Your task to perform on an android device: empty trash in the gmail app Image 0: 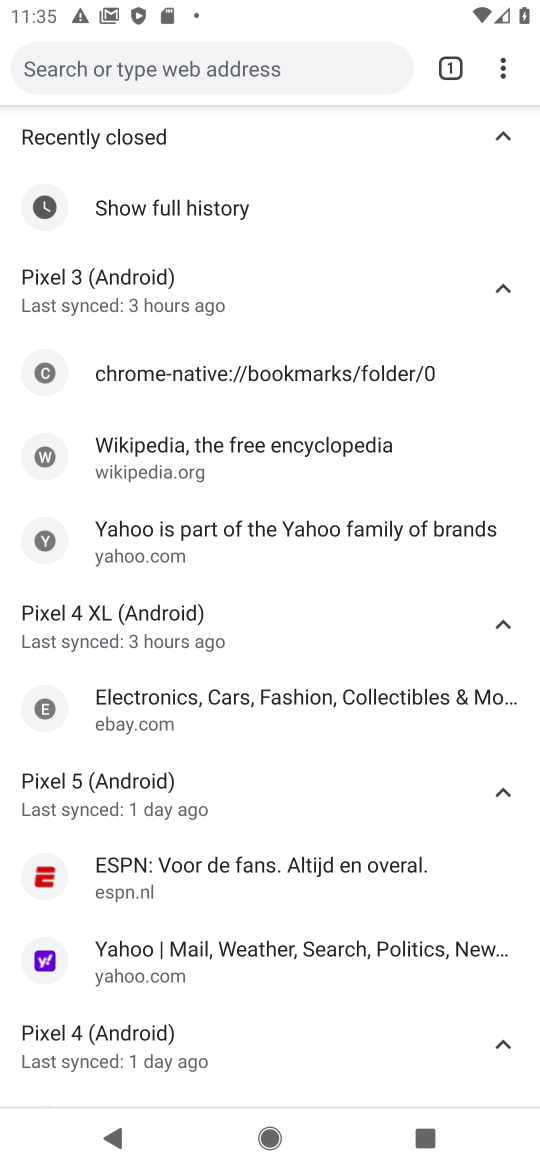
Step 0: press home button
Your task to perform on an android device: empty trash in the gmail app Image 1: 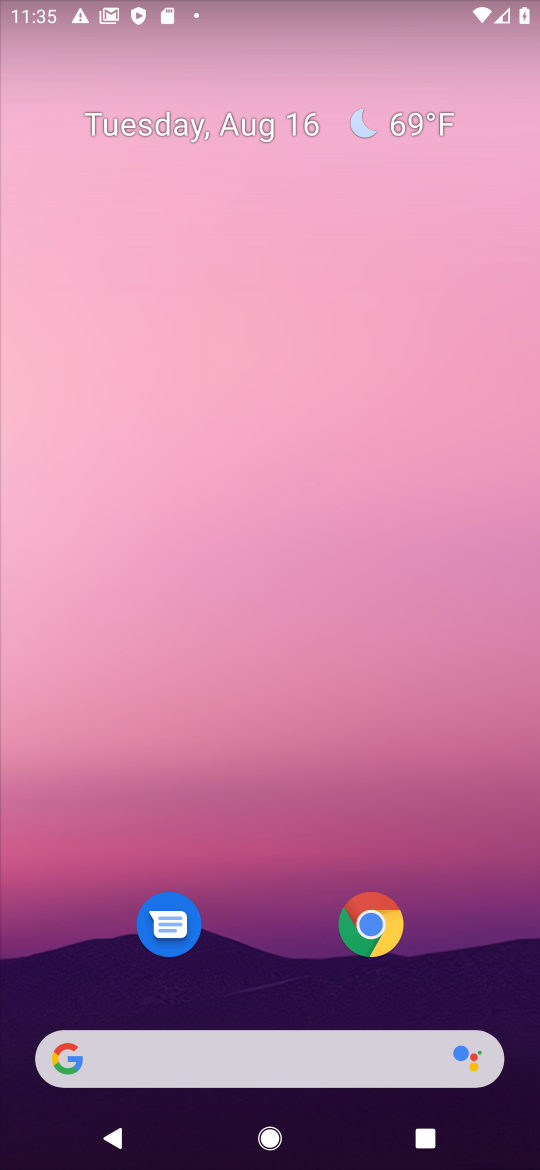
Step 1: drag from (317, 972) to (393, 49)
Your task to perform on an android device: empty trash in the gmail app Image 2: 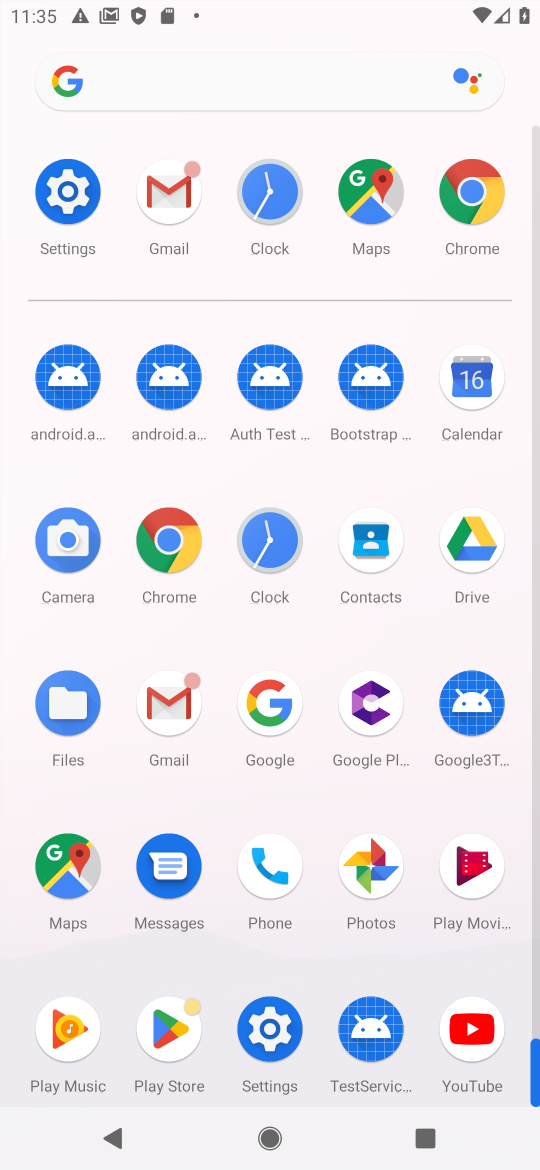
Step 2: click (148, 177)
Your task to perform on an android device: empty trash in the gmail app Image 3: 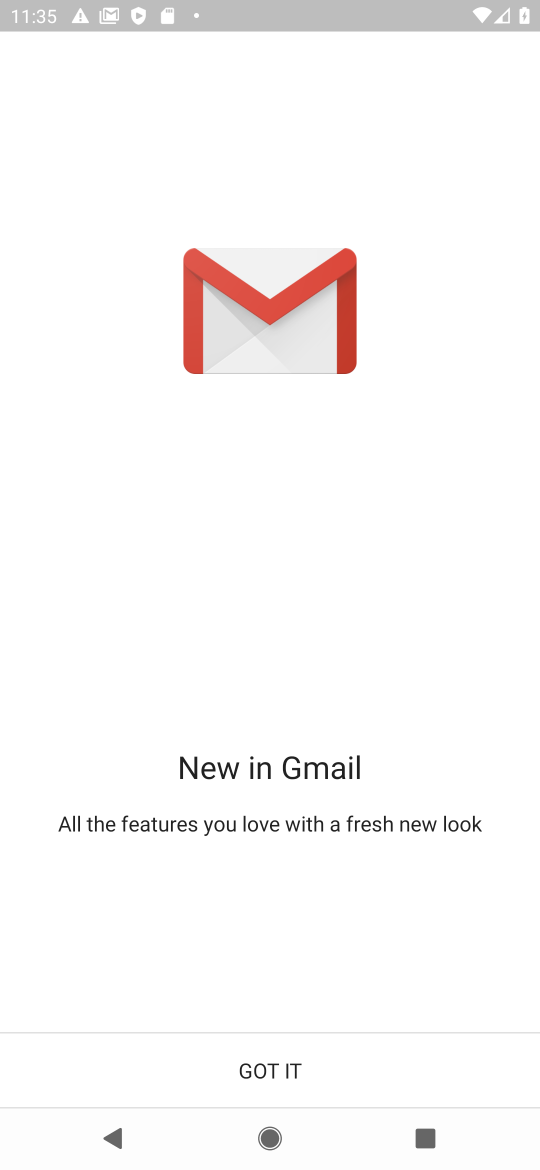
Step 3: click (403, 1062)
Your task to perform on an android device: empty trash in the gmail app Image 4: 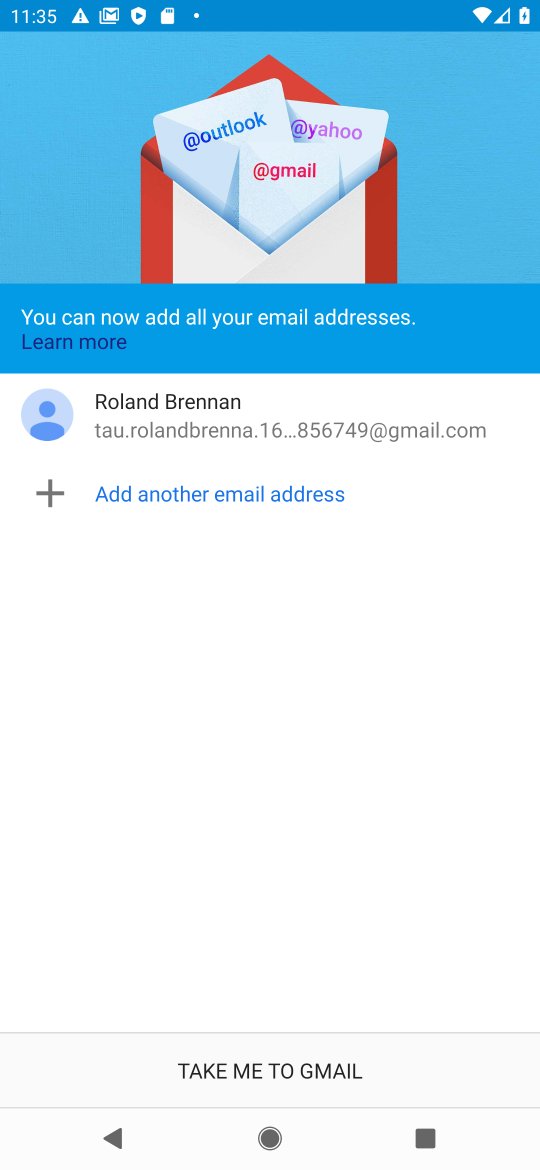
Step 4: click (403, 1062)
Your task to perform on an android device: empty trash in the gmail app Image 5: 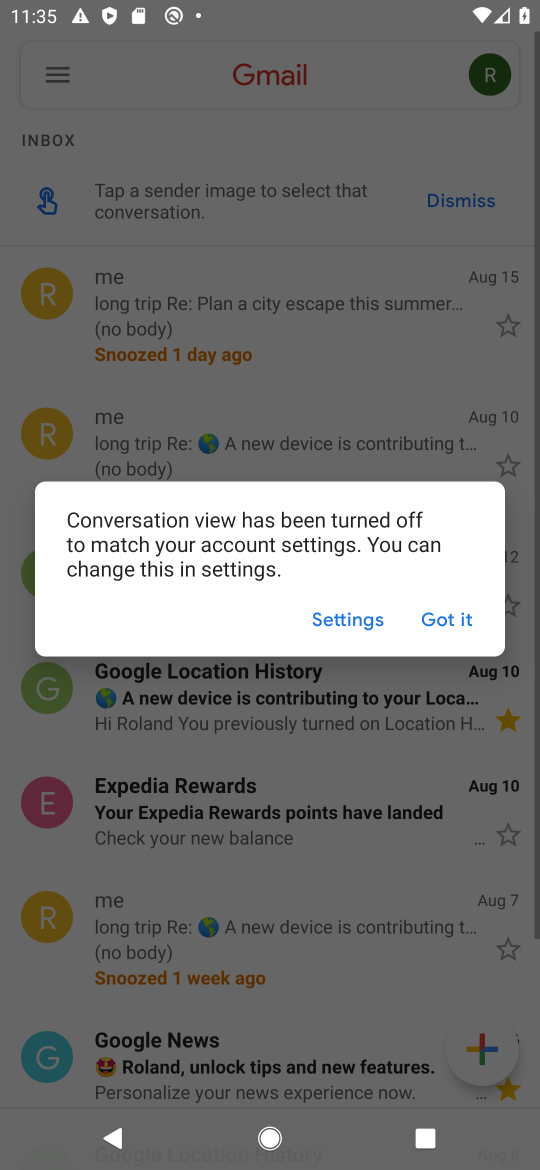
Step 5: click (438, 612)
Your task to perform on an android device: empty trash in the gmail app Image 6: 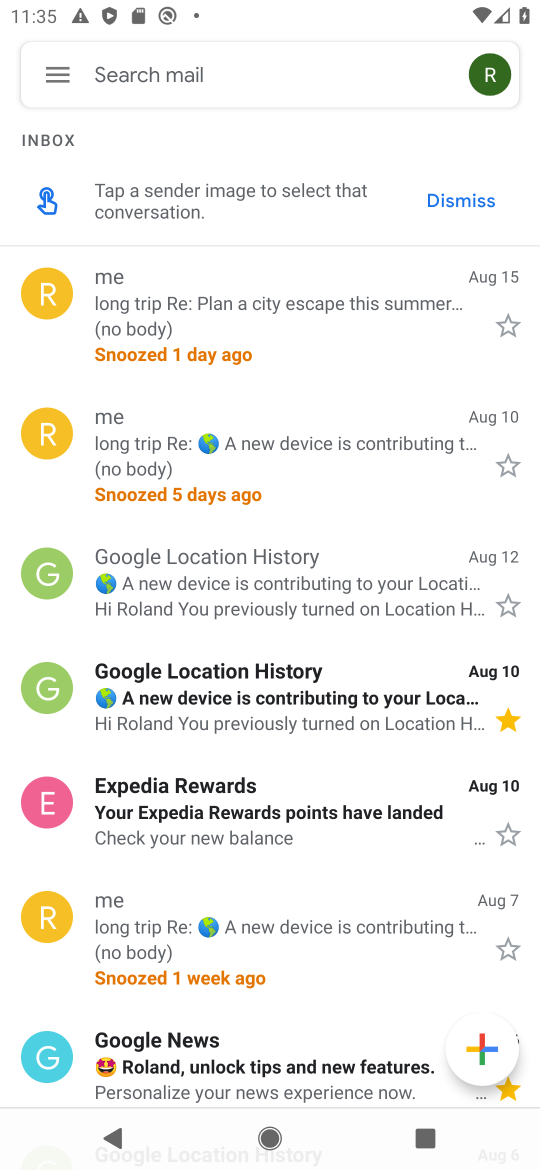
Step 6: click (46, 80)
Your task to perform on an android device: empty trash in the gmail app Image 7: 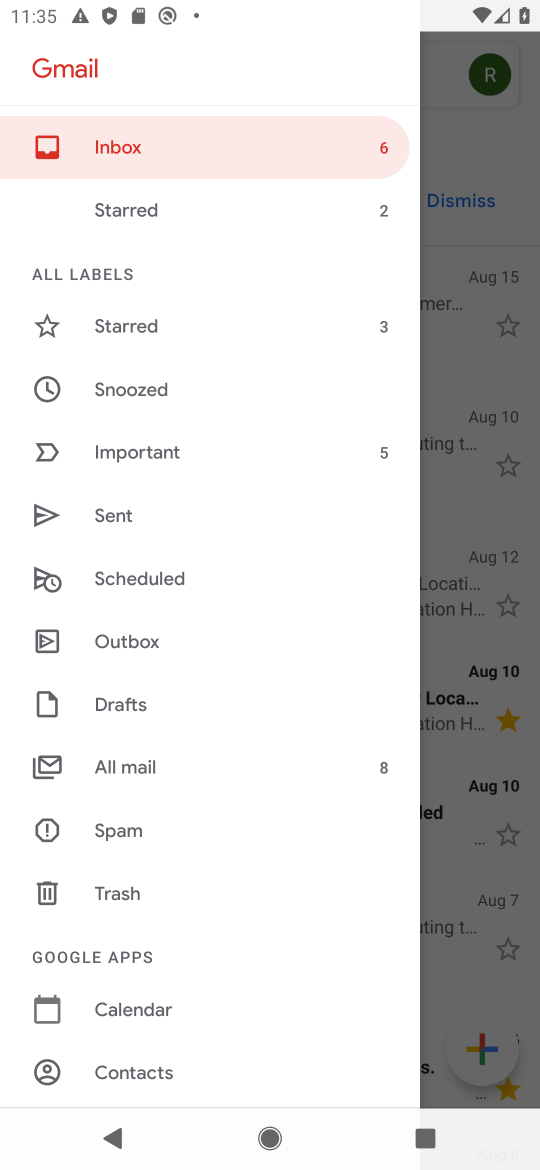
Step 7: click (95, 885)
Your task to perform on an android device: empty trash in the gmail app Image 8: 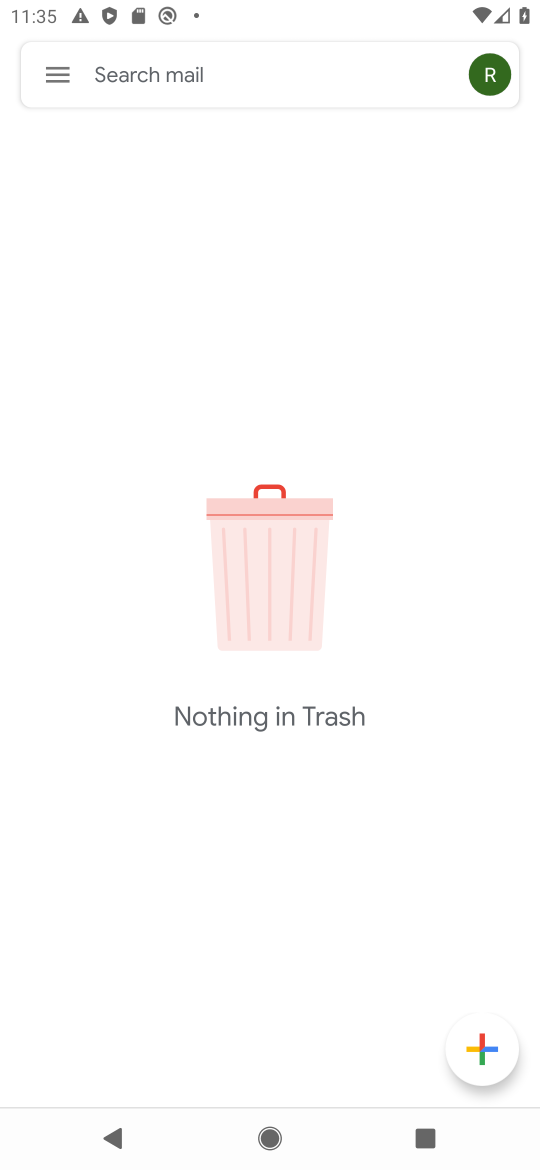
Step 8: task complete